Your task to perform on an android device: Open network settings Image 0: 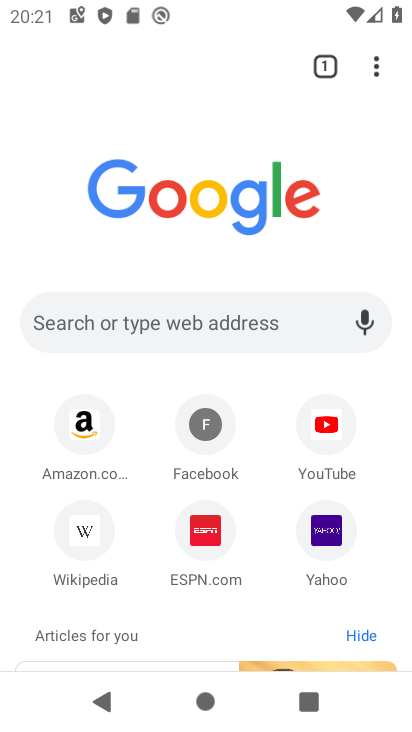
Step 0: press home button
Your task to perform on an android device: Open network settings Image 1: 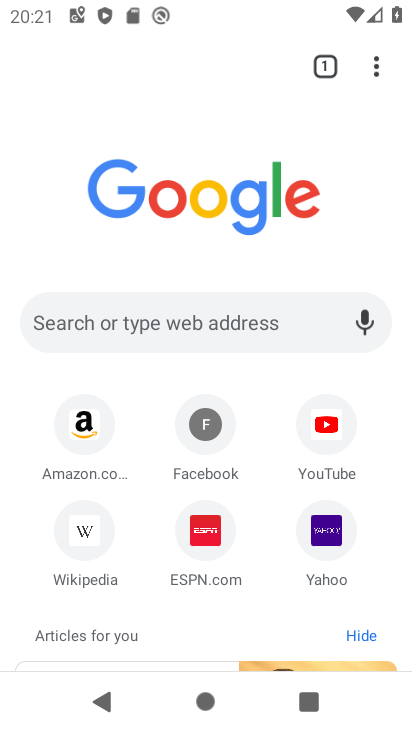
Step 1: press home button
Your task to perform on an android device: Open network settings Image 2: 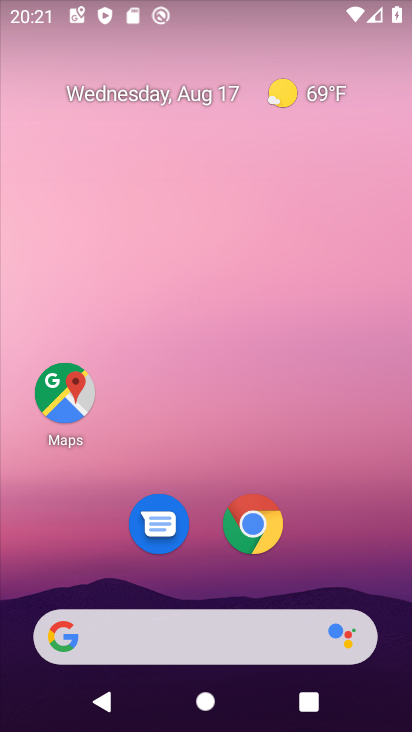
Step 2: drag from (304, 569) to (248, 36)
Your task to perform on an android device: Open network settings Image 3: 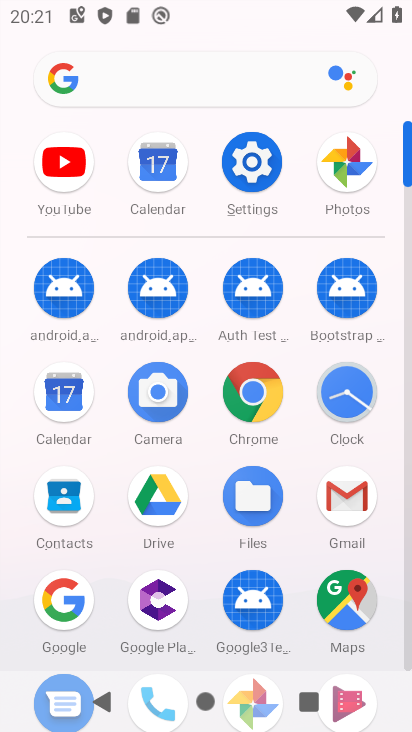
Step 3: click (255, 158)
Your task to perform on an android device: Open network settings Image 4: 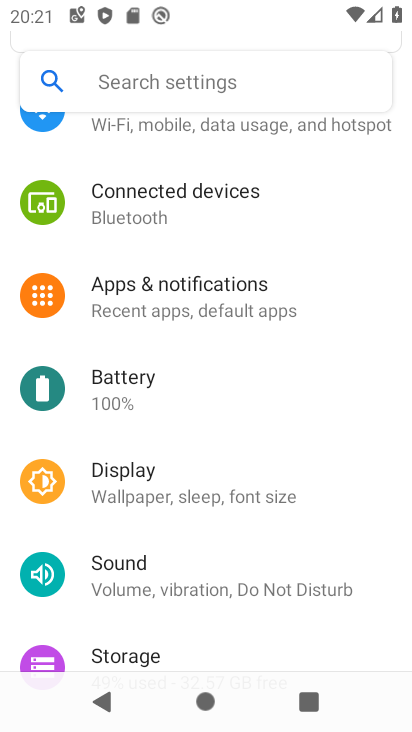
Step 4: drag from (253, 232) to (248, 463)
Your task to perform on an android device: Open network settings Image 5: 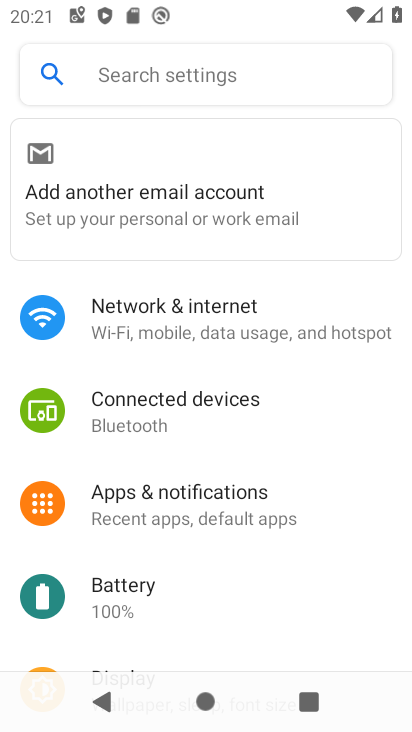
Step 5: click (237, 338)
Your task to perform on an android device: Open network settings Image 6: 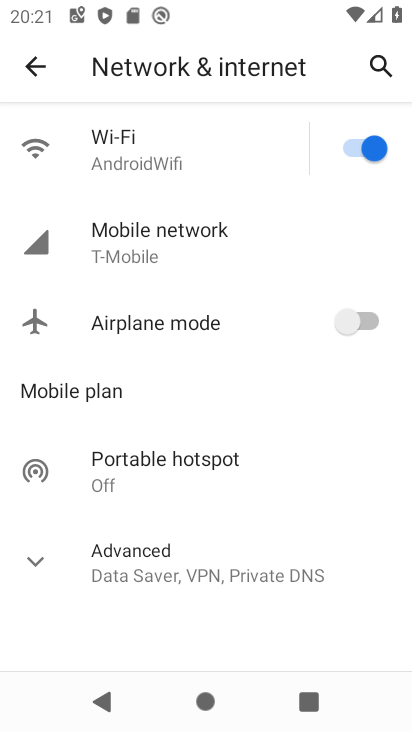
Step 6: task complete